Your task to perform on an android device: Search for sushi restaurants on Maps Image 0: 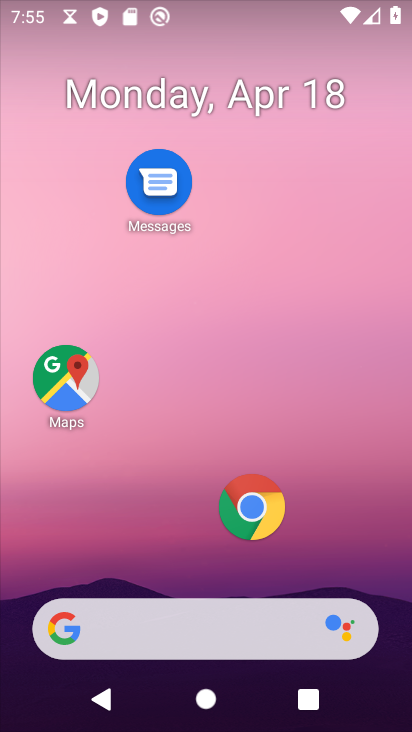
Step 0: click (54, 389)
Your task to perform on an android device: Search for sushi restaurants on Maps Image 1: 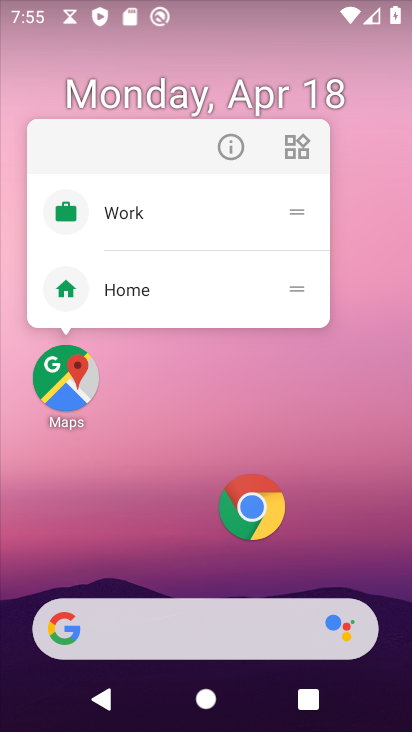
Step 1: click (59, 385)
Your task to perform on an android device: Search for sushi restaurants on Maps Image 2: 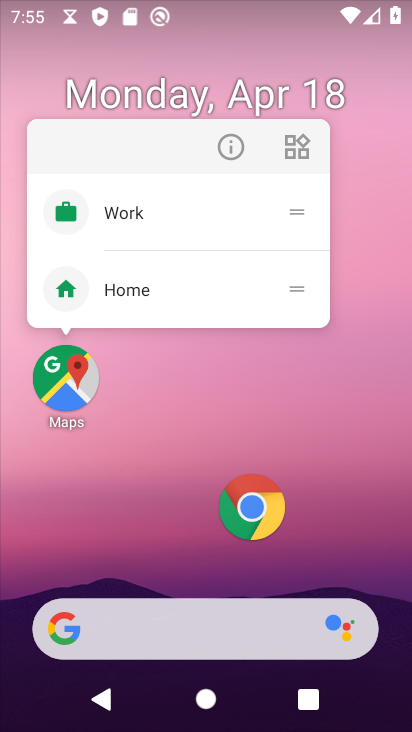
Step 2: click (59, 385)
Your task to perform on an android device: Search for sushi restaurants on Maps Image 3: 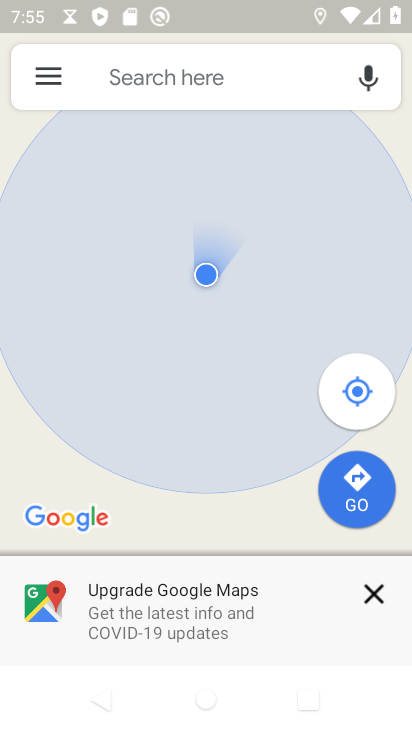
Step 3: click (165, 76)
Your task to perform on an android device: Search for sushi restaurants on Maps Image 4: 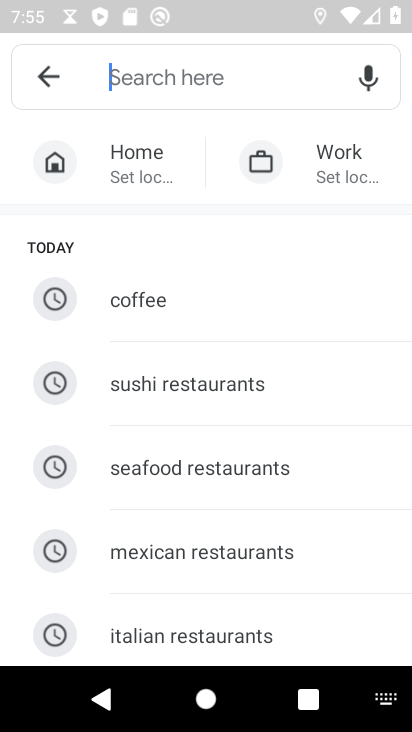
Step 4: click (168, 393)
Your task to perform on an android device: Search for sushi restaurants on Maps Image 5: 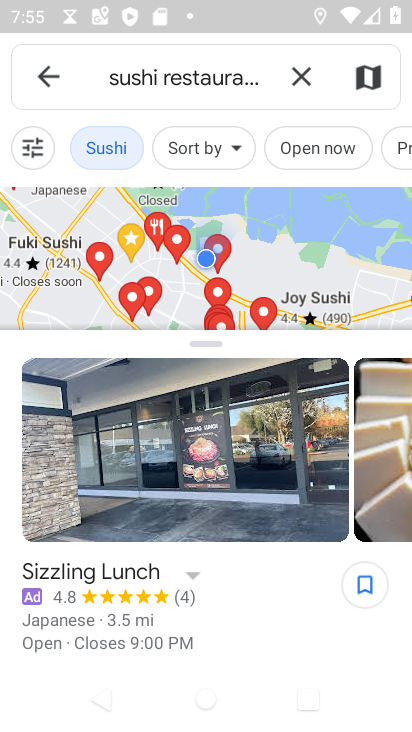
Step 5: task complete